Your task to perform on an android device: toggle airplane mode Image 0: 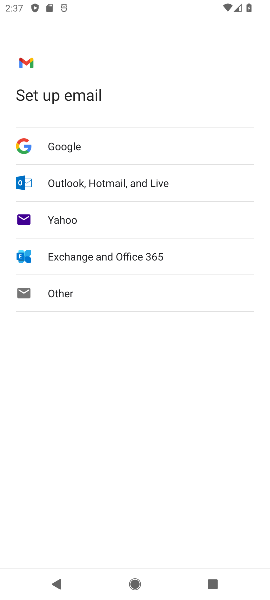
Step 0: press home button
Your task to perform on an android device: toggle airplane mode Image 1: 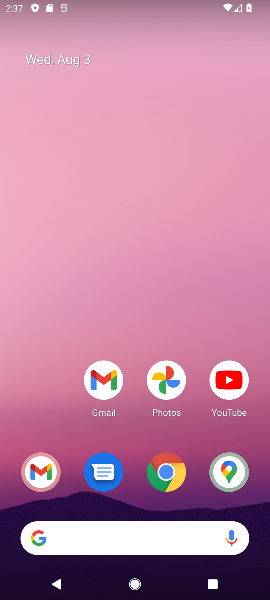
Step 1: drag from (195, 502) to (175, 153)
Your task to perform on an android device: toggle airplane mode Image 2: 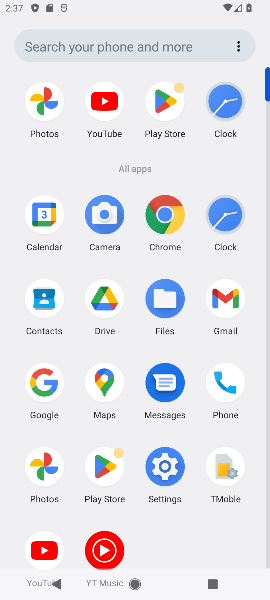
Step 2: press home button
Your task to perform on an android device: toggle airplane mode Image 3: 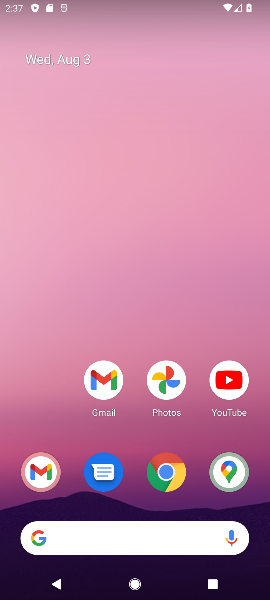
Step 3: drag from (135, 11) to (152, 473)
Your task to perform on an android device: toggle airplane mode Image 4: 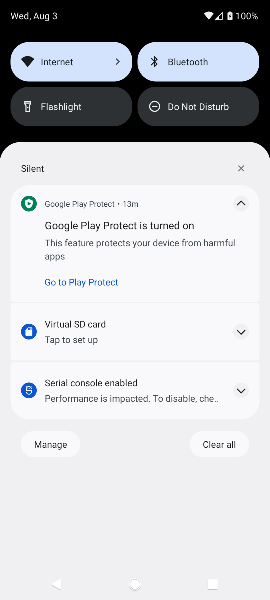
Step 4: drag from (136, 126) to (145, 534)
Your task to perform on an android device: toggle airplane mode Image 5: 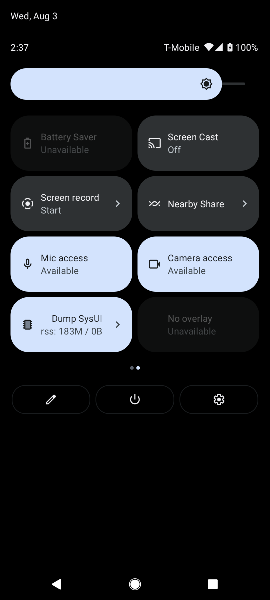
Step 5: drag from (15, 125) to (261, 222)
Your task to perform on an android device: toggle airplane mode Image 6: 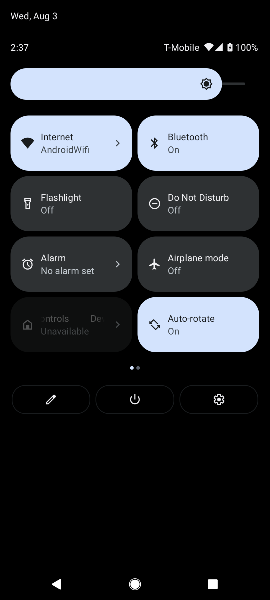
Step 6: click (185, 273)
Your task to perform on an android device: toggle airplane mode Image 7: 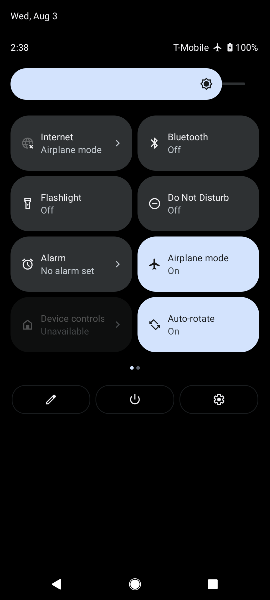
Step 7: task complete